Your task to perform on an android device: Go to eBay Image 0: 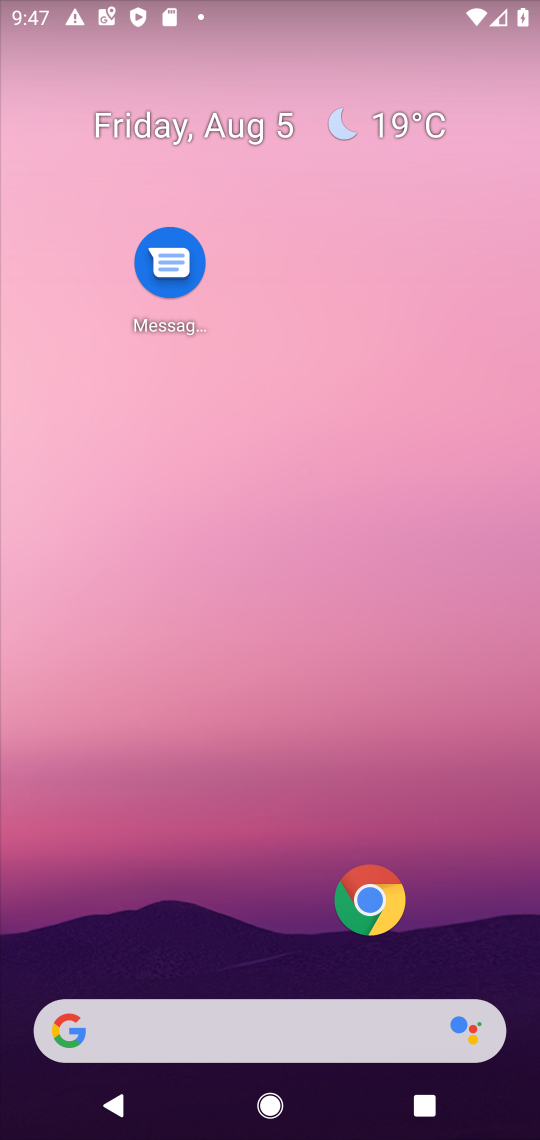
Step 0: press home button
Your task to perform on an android device: Go to eBay Image 1: 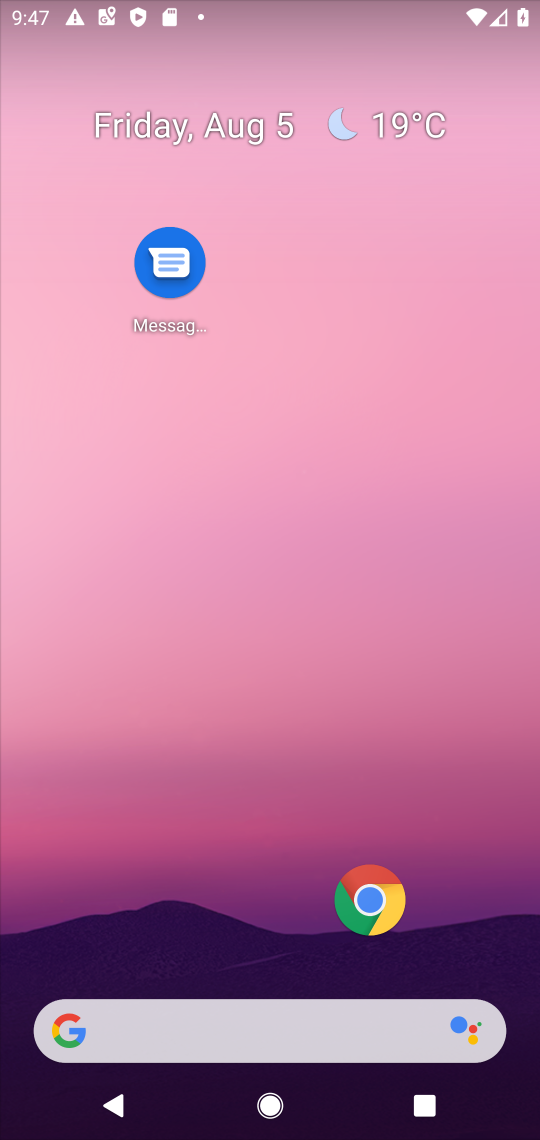
Step 1: drag from (150, 970) to (284, 5)
Your task to perform on an android device: Go to eBay Image 2: 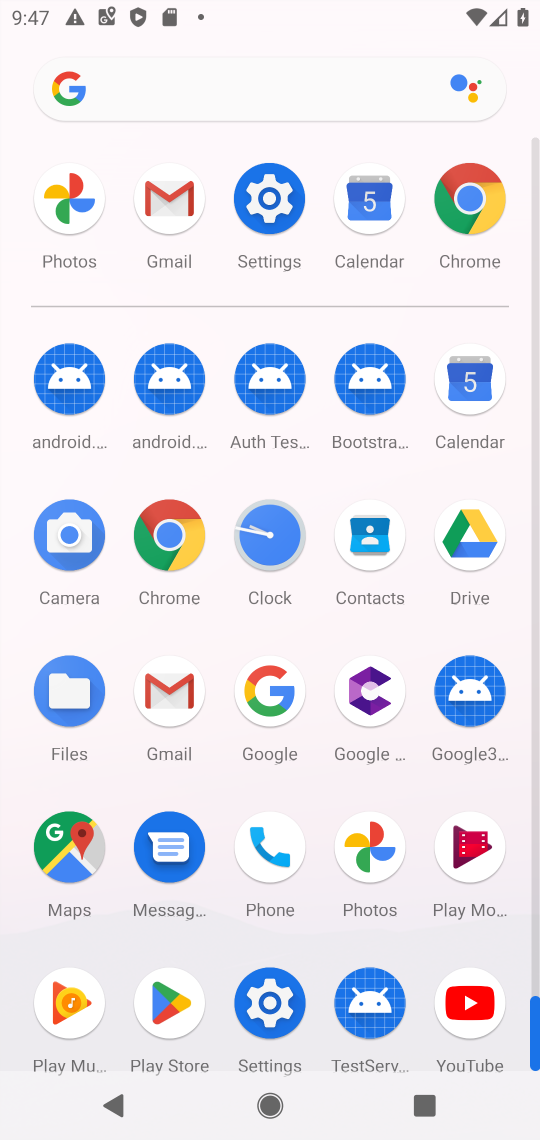
Step 2: click (493, 223)
Your task to perform on an android device: Go to eBay Image 3: 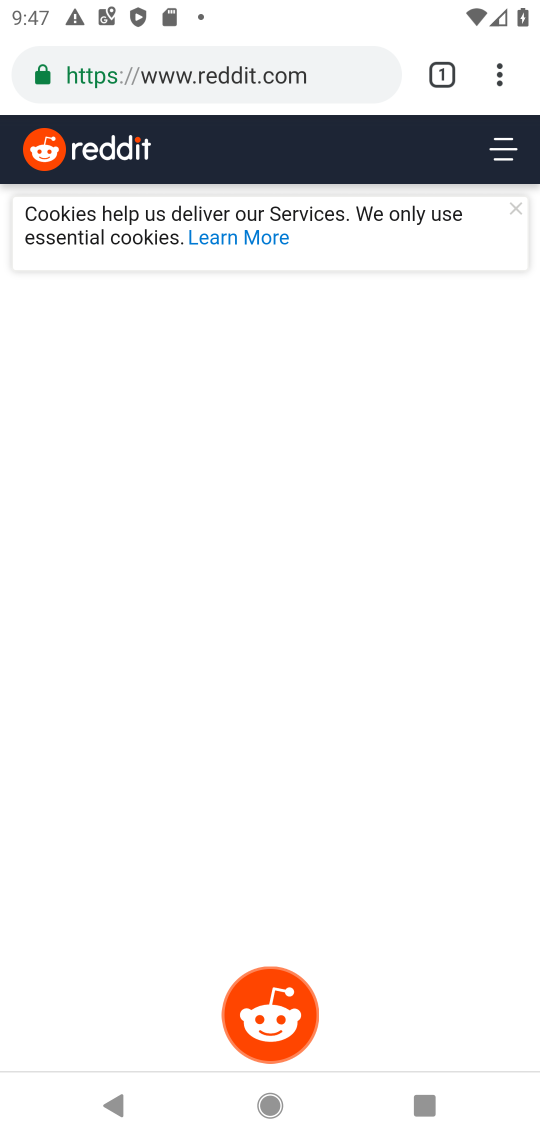
Step 3: click (231, 86)
Your task to perform on an android device: Go to eBay Image 4: 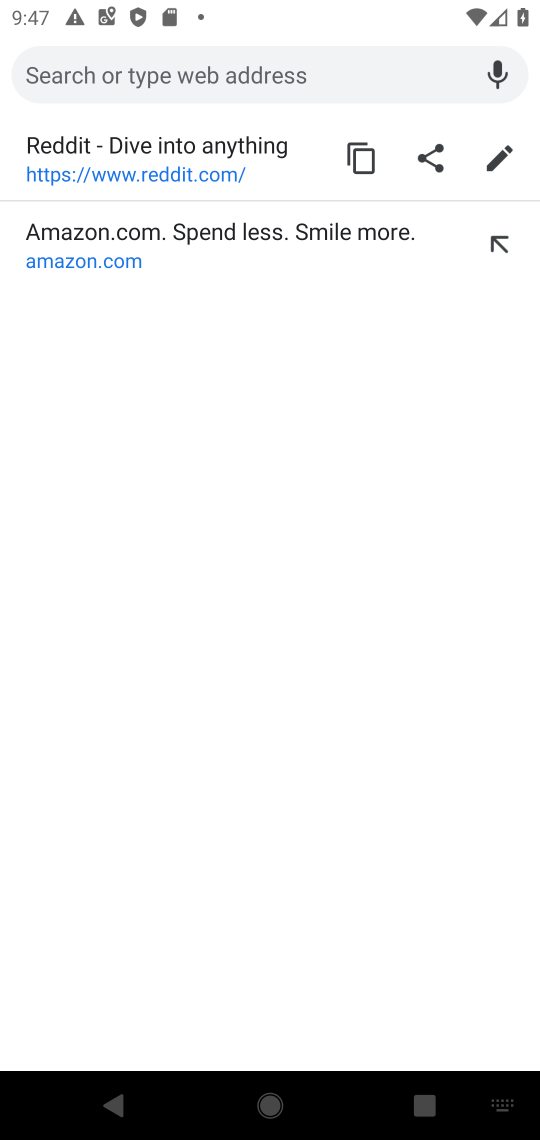
Step 4: type "eBay"
Your task to perform on an android device: Go to eBay Image 5: 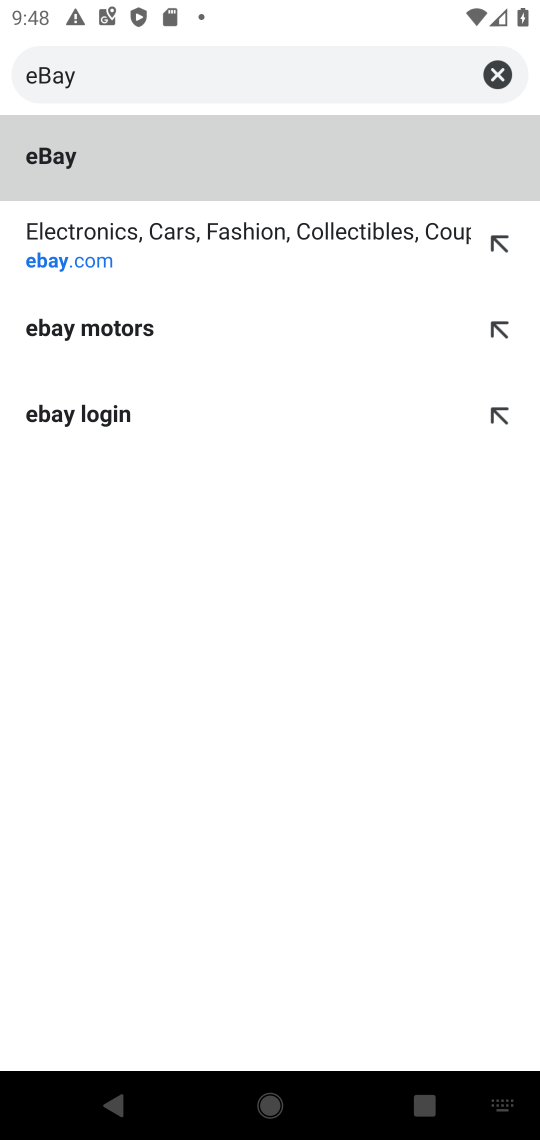
Step 5: click (130, 249)
Your task to perform on an android device: Go to eBay Image 6: 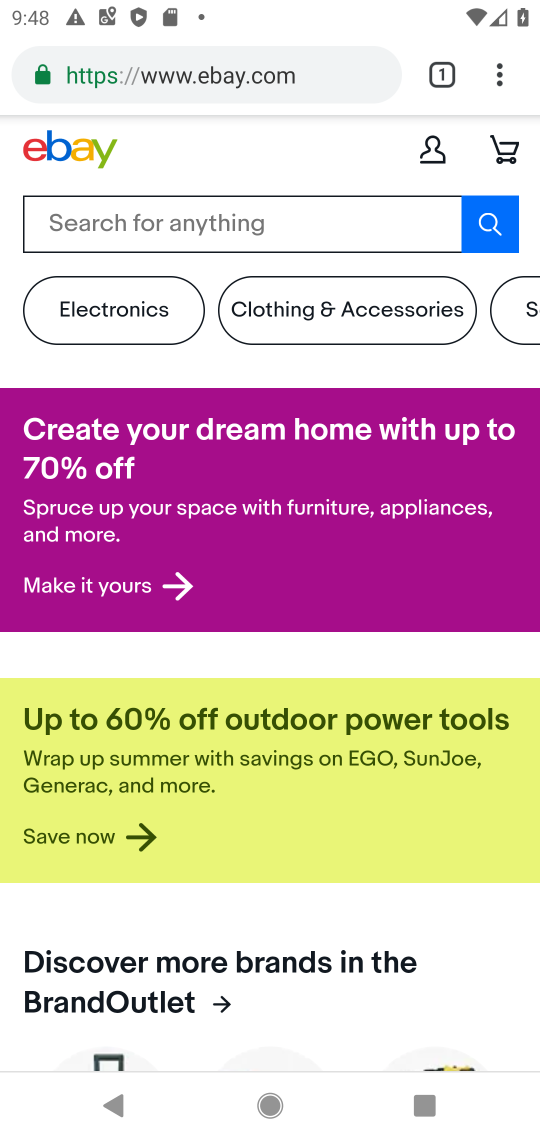
Step 6: task complete